Your task to perform on an android device: change the clock display to show seconds Image 0: 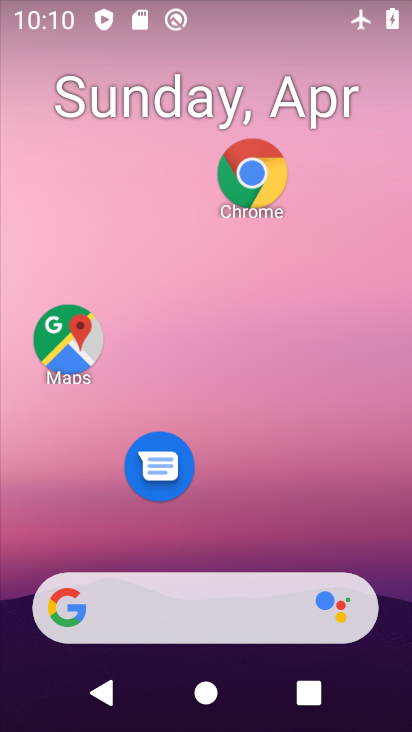
Step 0: drag from (374, 320) to (263, 14)
Your task to perform on an android device: change the clock display to show seconds Image 1: 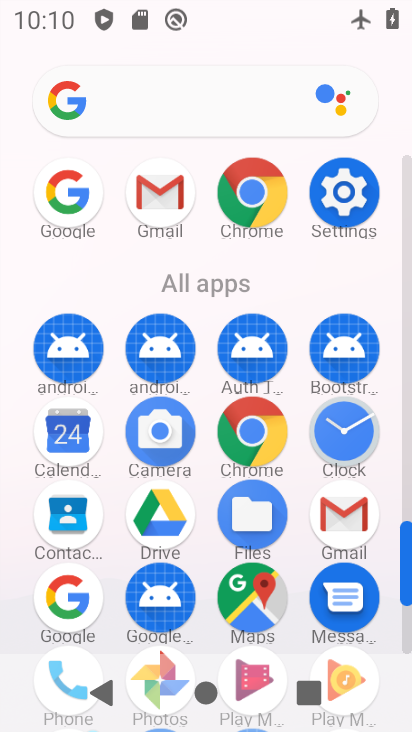
Step 1: click (357, 439)
Your task to perform on an android device: change the clock display to show seconds Image 2: 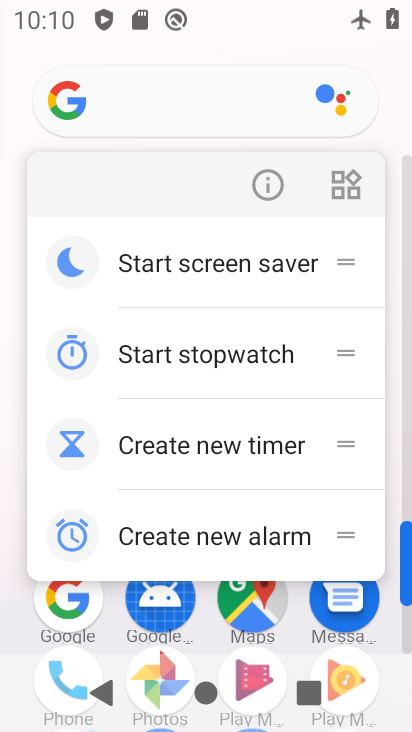
Step 2: click (395, 116)
Your task to perform on an android device: change the clock display to show seconds Image 3: 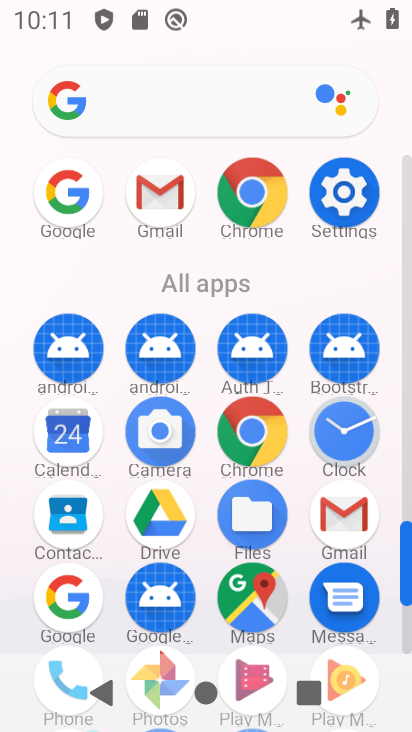
Step 3: click (349, 436)
Your task to perform on an android device: change the clock display to show seconds Image 4: 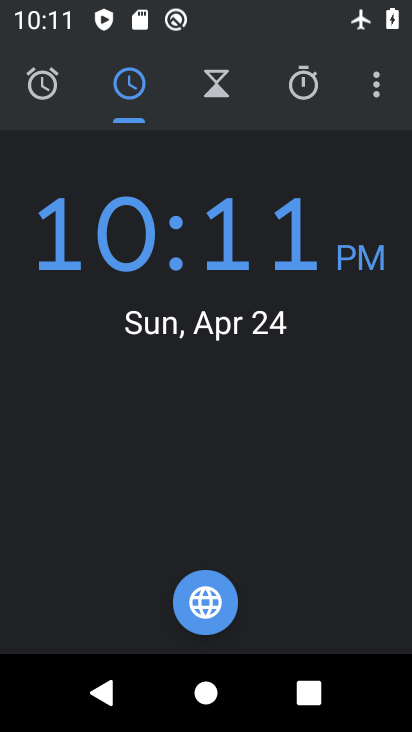
Step 4: click (381, 91)
Your task to perform on an android device: change the clock display to show seconds Image 5: 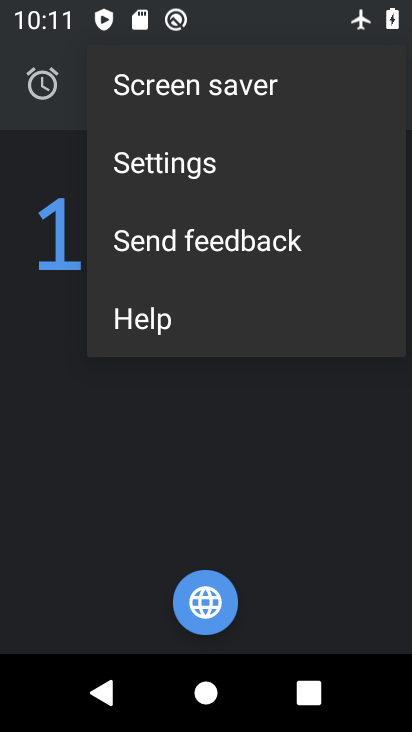
Step 5: click (215, 163)
Your task to perform on an android device: change the clock display to show seconds Image 6: 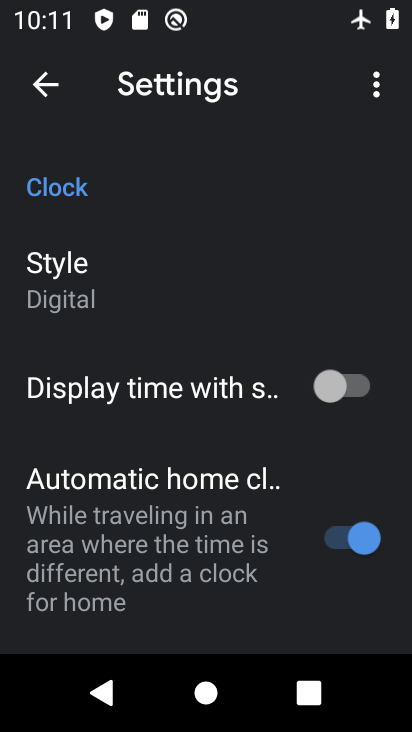
Step 6: click (324, 389)
Your task to perform on an android device: change the clock display to show seconds Image 7: 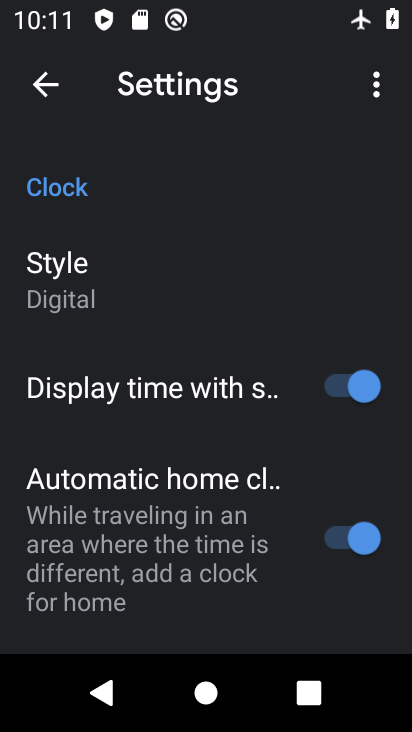
Step 7: task complete